Your task to perform on an android device: turn smart compose on in the gmail app Image 0: 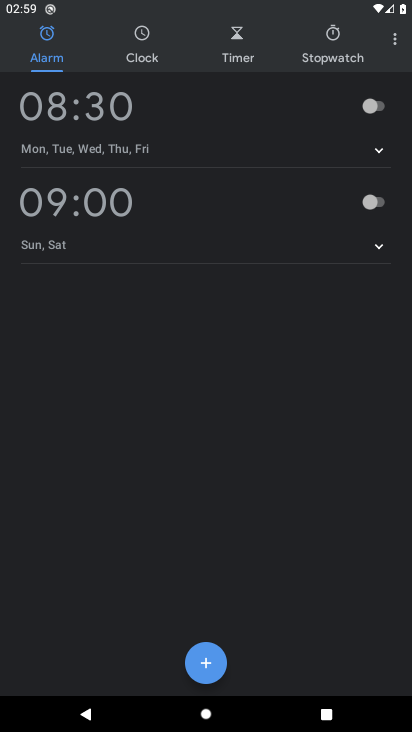
Step 0: press home button
Your task to perform on an android device: turn smart compose on in the gmail app Image 1: 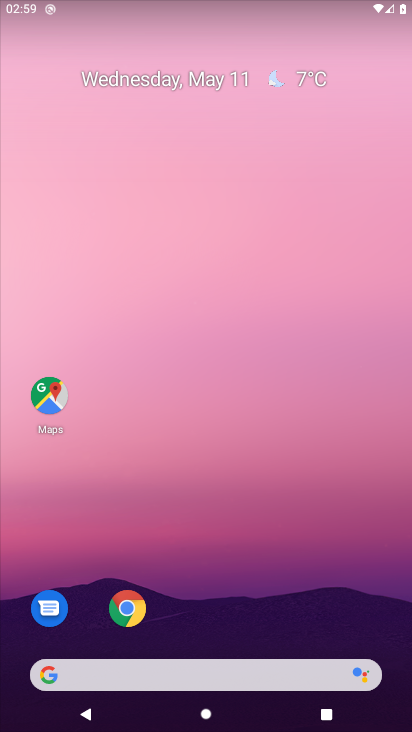
Step 1: drag from (221, 631) to (264, 178)
Your task to perform on an android device: turn smart compose on in the gmail app Image 2: 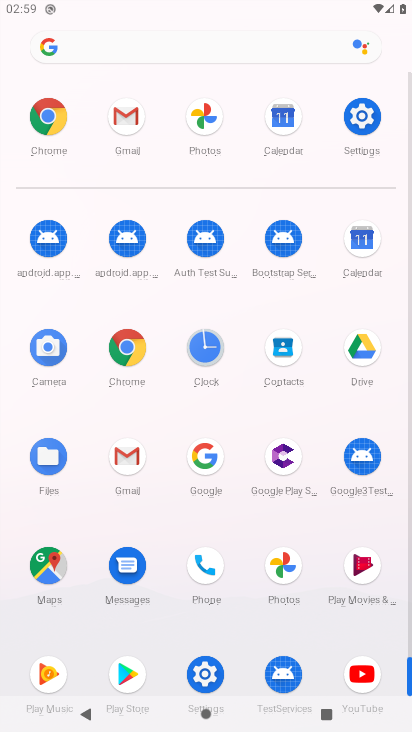
Step 2: click (120, 454)
Your task to perform on an android device: turn smart compose on in the gmail app Image 3: 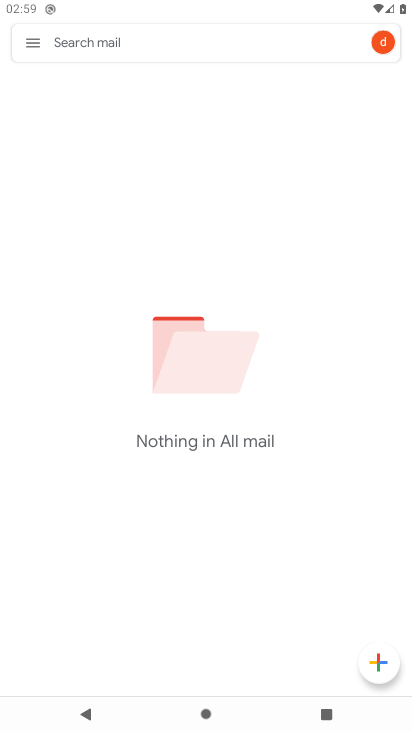
Step 3: click (28, 45)
Your task to perform on an android device: turn smart compose on in the gmail app Image 4: 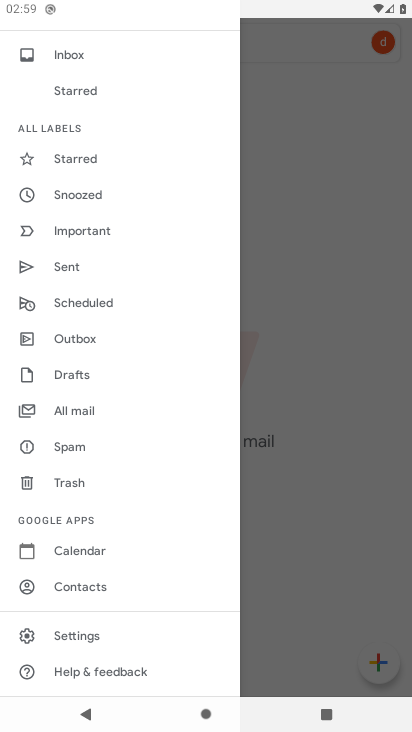
Step 4: click (92, 632)
Your task to perform on an android device: turn smart compose on in the gmail app Image 5: 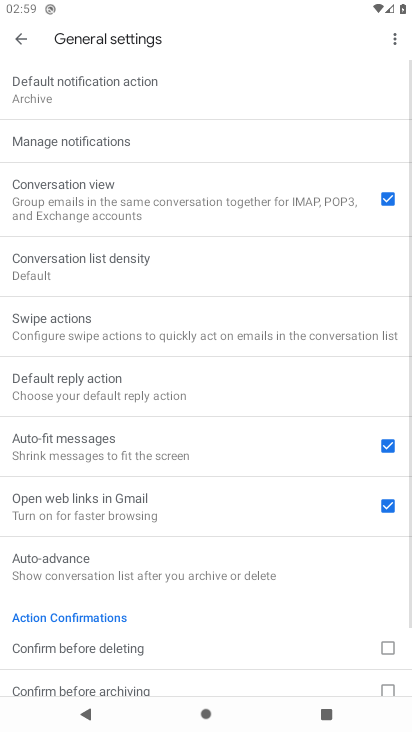
Step 5: click (23, 42)
Your task to perform on an android device: turn smart compose on in the gmail app Image 6: 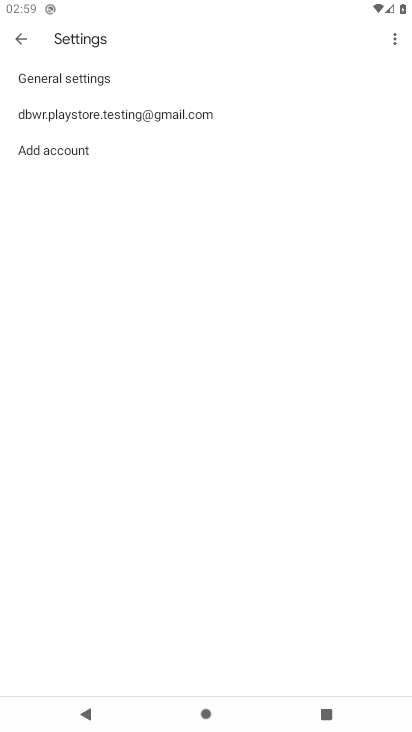
Step 6: click (162, 119)
Your task to perform on an android device: turn smart compose on in the gmail app Image 7: 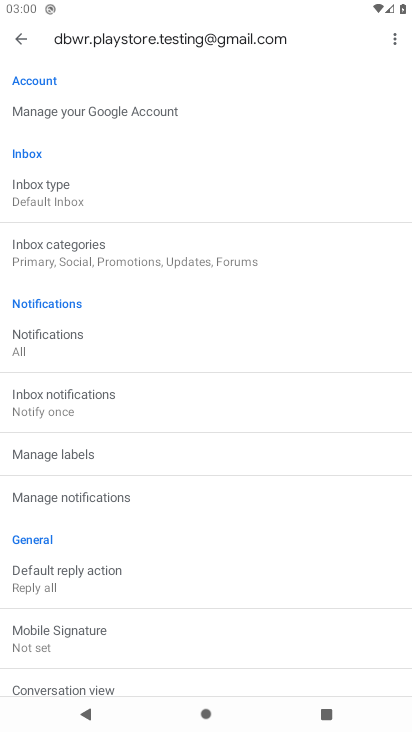
Step 7: task complete